Your task to perform on an android device: Go to ESPN.com Image 0: 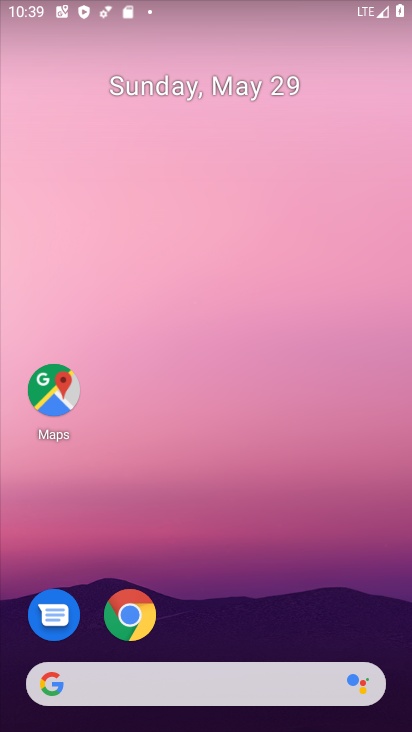
Step 0: drag from (352, 637) to (386, 197)
Your task to perform on an android device: Go to ESPN.com Image 1: 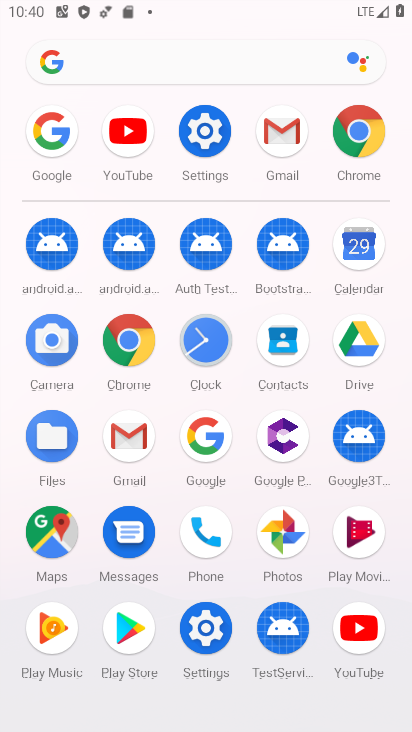
Step 1: click (131, 355)
Your task to perform on an android device: Go to ESPN.com Image 2: 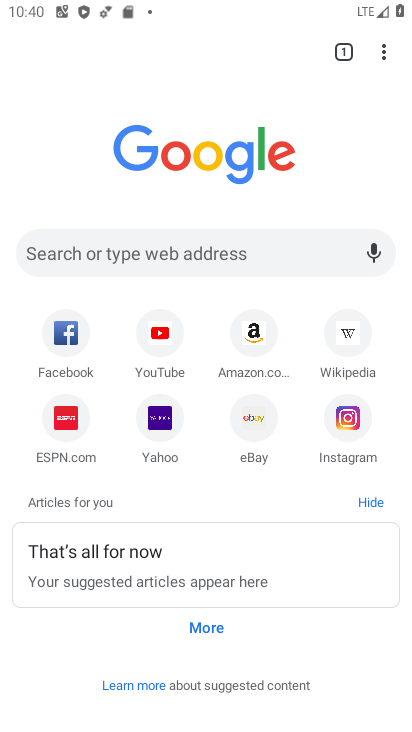
Step 2: click (74, 444)
Your task to perform on an android device: Go to ESPN.com Image 3: 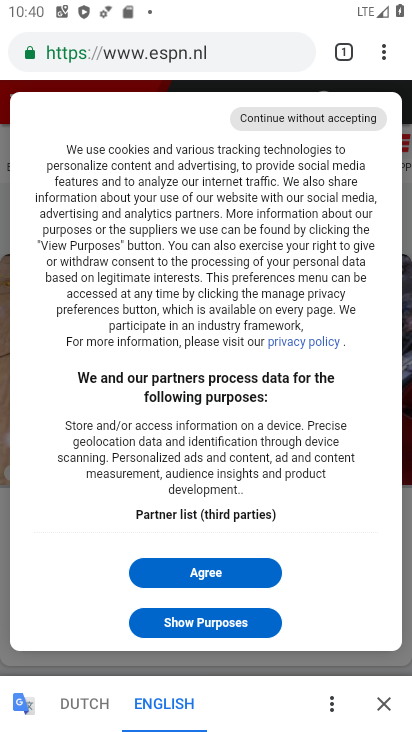
Step 3: task complete